Your task to perform on an android device: Check the news Image 0: 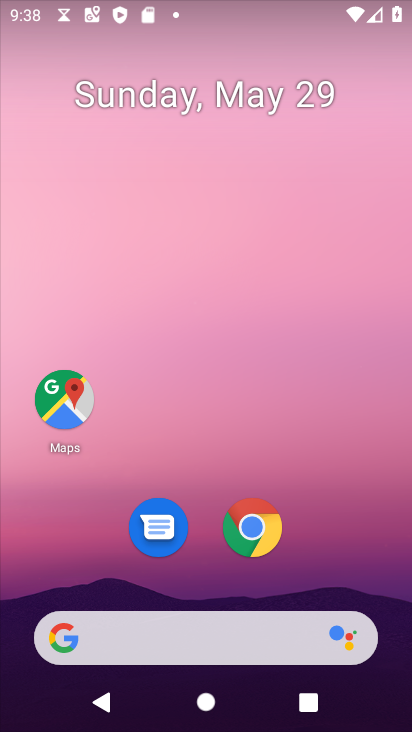
Step 0: press home button
Your task to perform on an android device: Check the news Image 1: 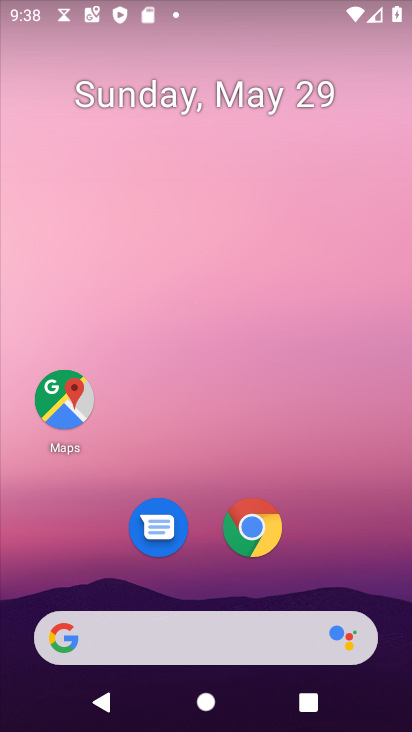
Step 1: click (72, 644)
Your task to perform on an android device: Check the news Image 2: 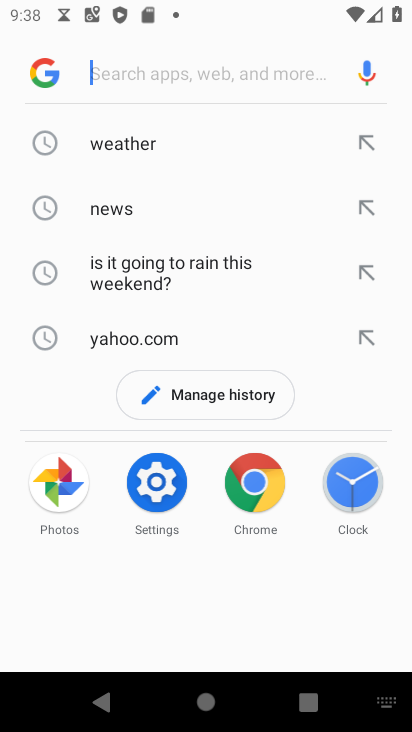
Step 2: click (128, 209)
Your task to perform on an android device: Check the news Image 3: 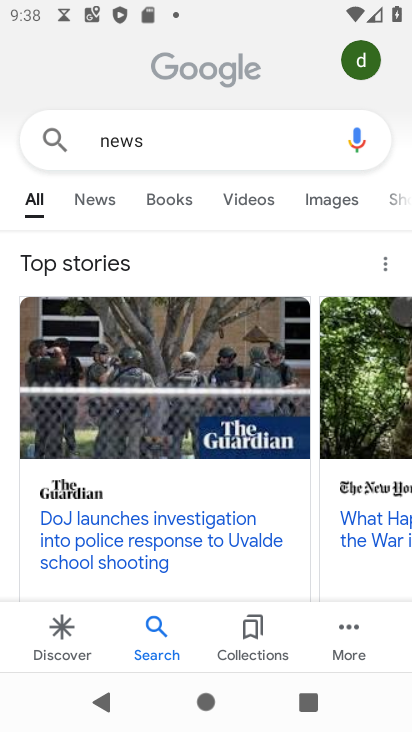
Step 3: click (99, 203)
Your task to perform on an android device: Check the news Image 4: 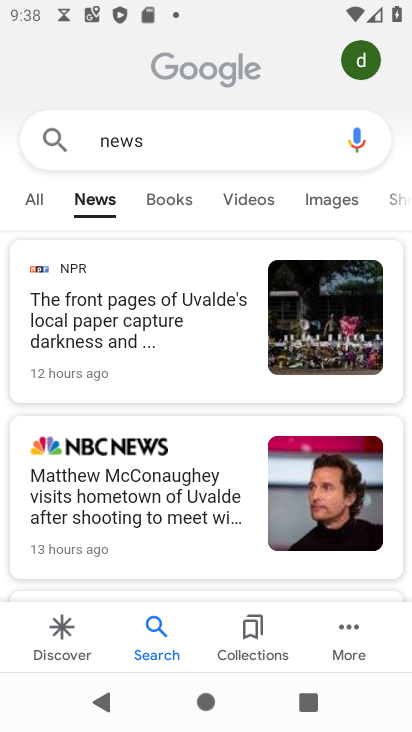
Step 4: task complete